Your task to perform on an android device: toggle translation in the chrome app Image 0: 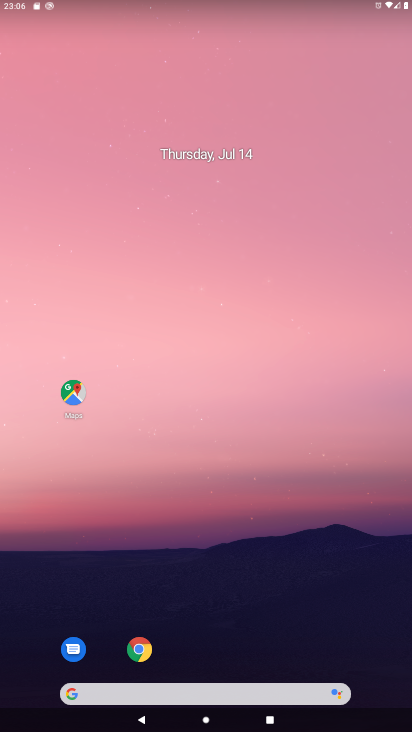
Step 0: click (144, 645)
Your task to perform on an android device: toggle translation in the chrome app Image 1: 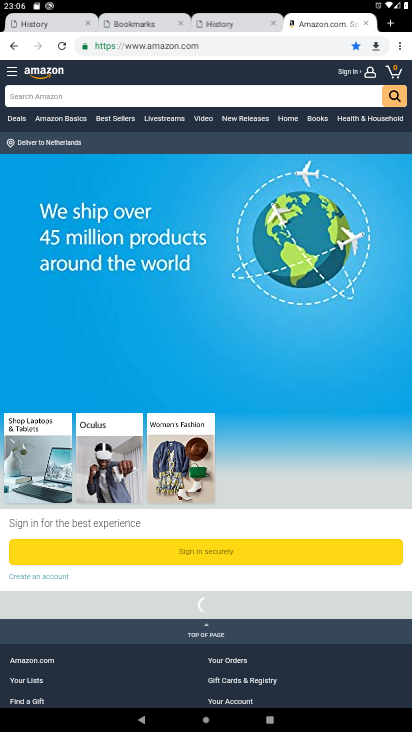
Step 1: click (403, 45)
Your task to perform on an android device: toggle translation in the chrome app Image 2: 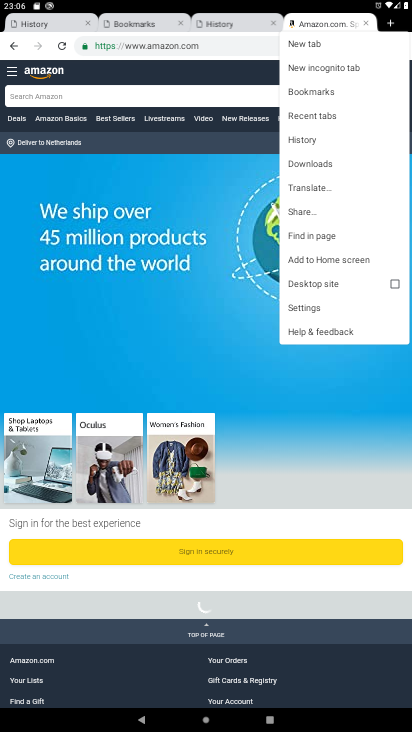
Step 2: click (314, 311)
Your task to perform on an android device: toggle translation in the chrome app Image 3: 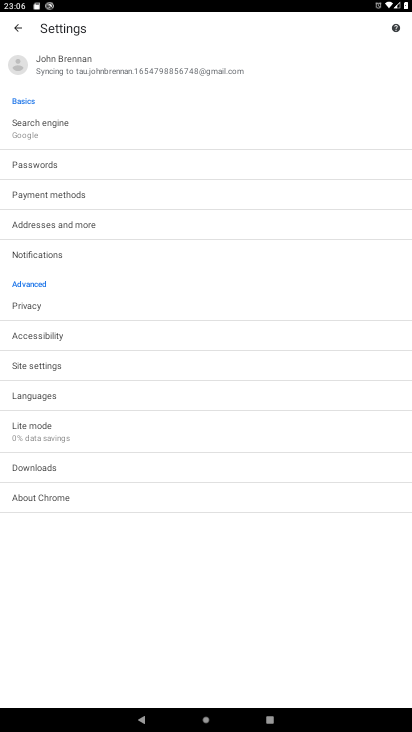
Step 3: click (85, 407)
Your task to perform on an android device: toggle translation in the chrome app Image 4: 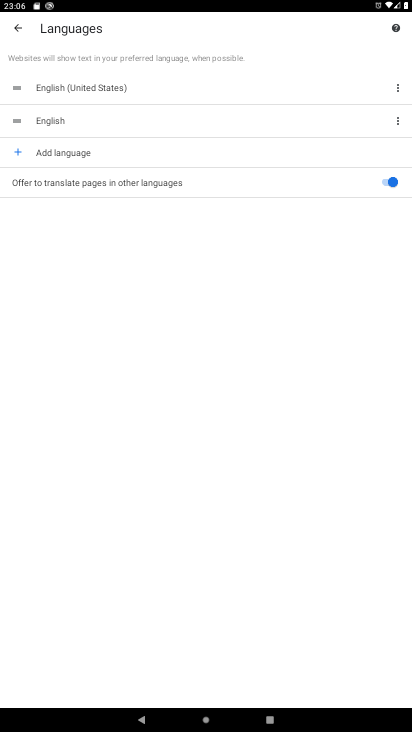
Step 4: click (392, 182)
Your task to perform on an android device: toggle translation in the chrome app Image 5: 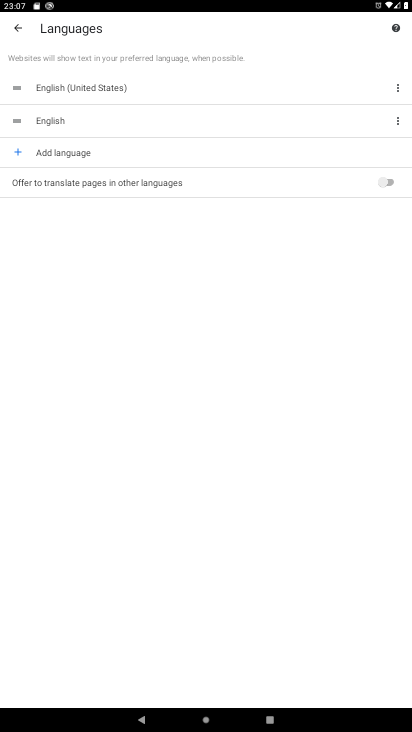
Step 5: task complete